Your task to perform on an android device: Clear the cart on newegg. Add "panasonic triple a" to the cart on newegg Image 0: 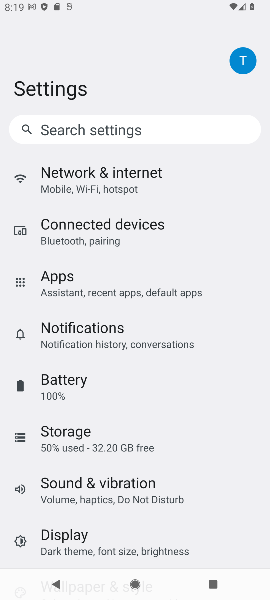
Step 0: press home button
Your task to perform on an android device: Clear the cart on newegg. Add "panasonic triple a" to the cart on newegg Image 1: 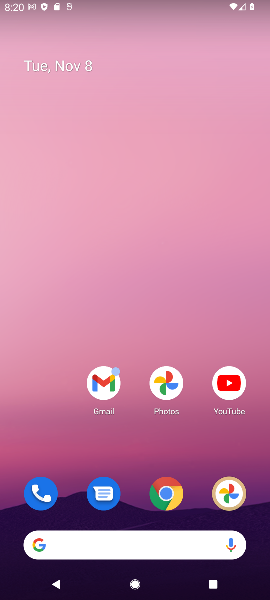
Step 1: click (159, 500)
Your task to perform on an android device: Clear the cart on newegg. Add "panasonic triple a" to the cart on newegg Image 2: 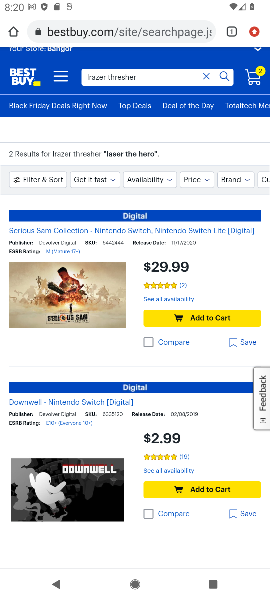
Step 2: click (122, 33)
Your task to perform on an android device: Clear the cart on newegg. Add "panasonic triple a" to the cart on newegg Image 3: 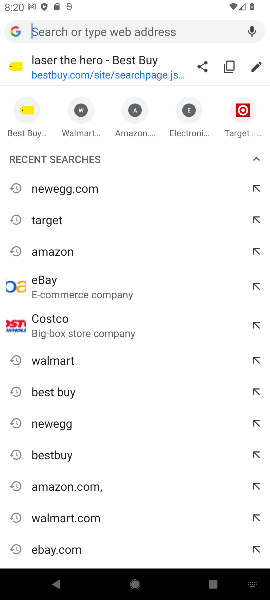
Step 3: click (65, 187)
Your task to perform on an android device: Clear the cart on newegg. Add "panasonic triple a" to the cart on newegg Image 4: 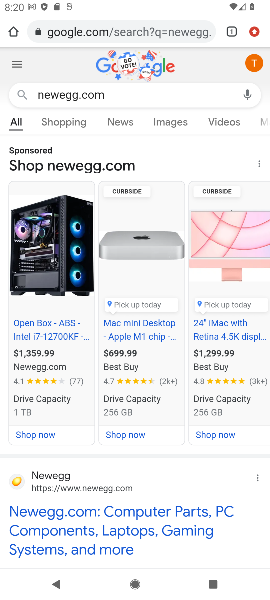
Step 4: click (36, 489)
Your task to perform on an android device: Clear the cart on newegg. Add "panasonic triple a" to the cart on newegg Image 5: 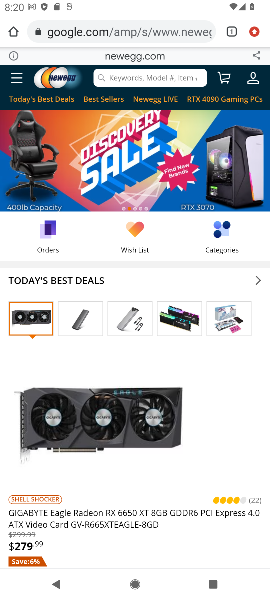
Step 5: click (224, 83)
Your task to perform on an android device: Clear the cart on newegg. Add "panasonic triple a" to the cart on newegg Image 6: 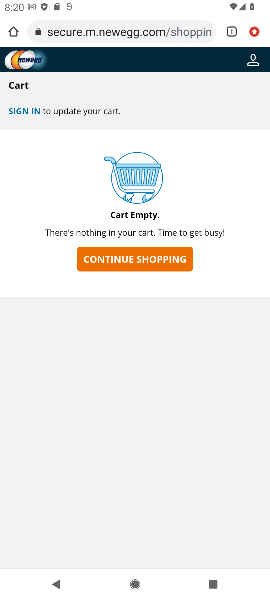
Step 6: click (124, 261)
Your task to perform on an android device: Clear the cart on newegg. Add "panasonic triple a" to the cart on newegg Image 7: 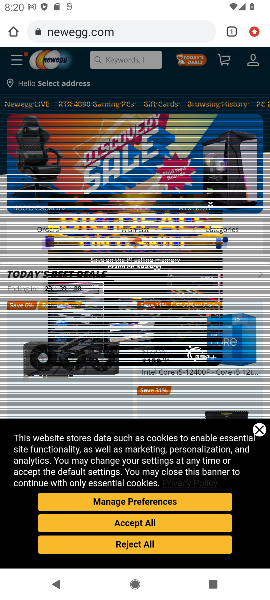
Step 7: click (258, 430)
Your task to perform on an android device: Clear the cart on newegg. Add "panasonic triple a" to the cart on newegg Image 8: 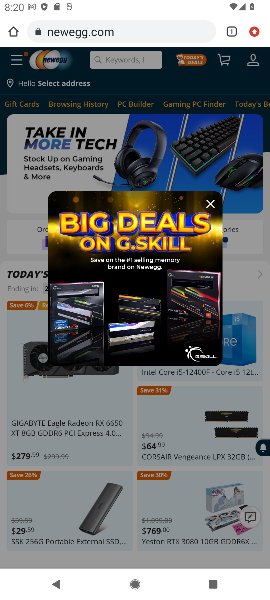
Step 8: click (132, 60)
Your task to perform on an android device: Clear the cart on newegg. Add "panasonic triple a" to the cart on newegg Image 9: 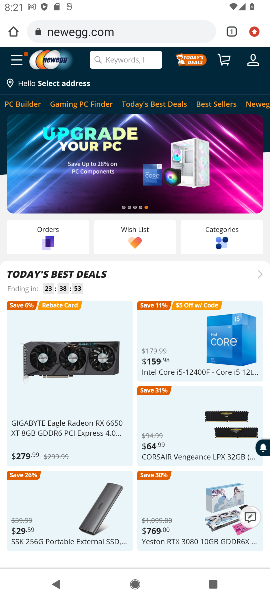
Step 9: type "panasonic triple a"
Your task to perform on an android device: Clear the cart on newegg. Add "panasonic triple a" to the cart on newegg Image 10: 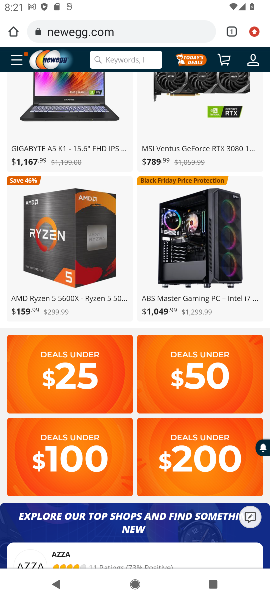
Step 10: click (119, 58)
Your task to perform on an android device: Clear the cart on newegg. Add "panasonic triple a" to the cart on newegg Image 11: 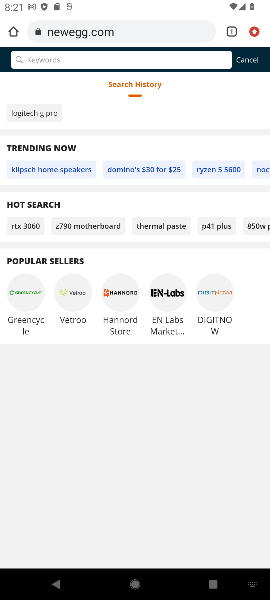
Step 11: type "panasonic triple a"
Your task to perform on an android device: Clear the cart on newegg. Add "panasonic triple a" to the cart on newegg Image 12: 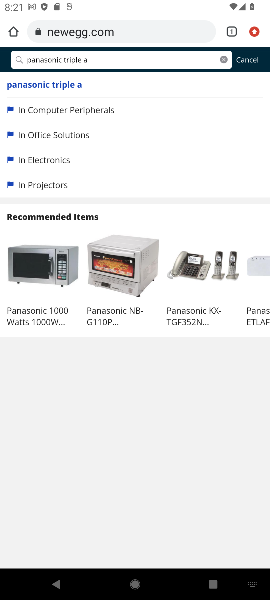
Step 12: click (49, 87)
Your task to perform on an android device: Clear the cart on newegg. Add "panasonic triple a" to the cart on newegg Image 13: 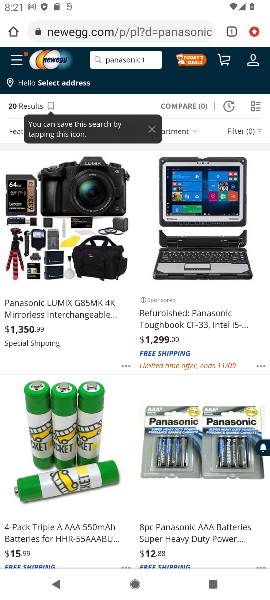
Step 13: drag from (90, 453) to (107, 303)
Your task to perform on an android device: Clear the cart on newegg. Add "panasonic triple a" to the cart on newegg Image 14: 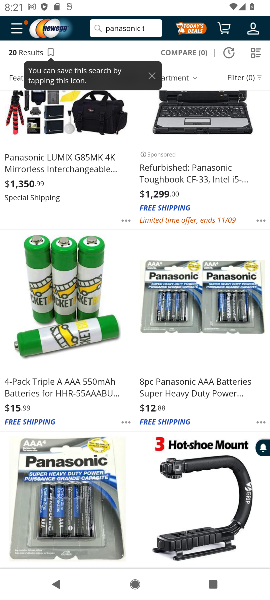
Step 14: click (208, 341)
Your task to perform on an android device: Clear the cart on newegg. Add "panasonic triple a" to the cart on newegg Image 15: 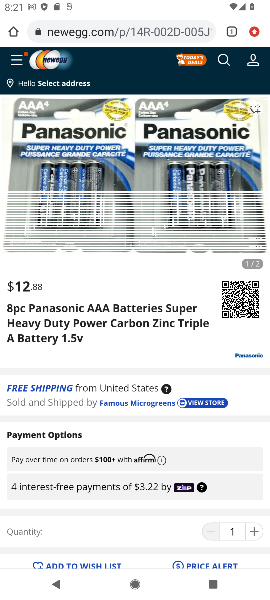
Step 15: click (125, 554)
Your task to perform on an android device: Clear the cart on newegg. Add "panasonic triple a" to the cart on newegg Image 16: 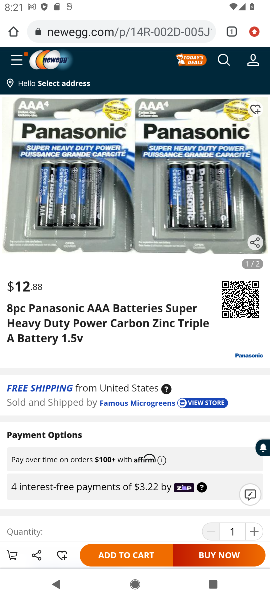
Step 16: click (125, 554)
Your task to perform on an android device: Clear the cart on newegg. Add "panasonic triple a" to the cart on newegg Image 17: 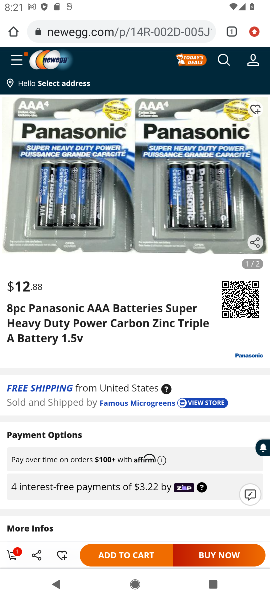
Step 17: task complete